Your task to perform on an android device: Open the Play Movies app and select the watchlist tab. Image 0: 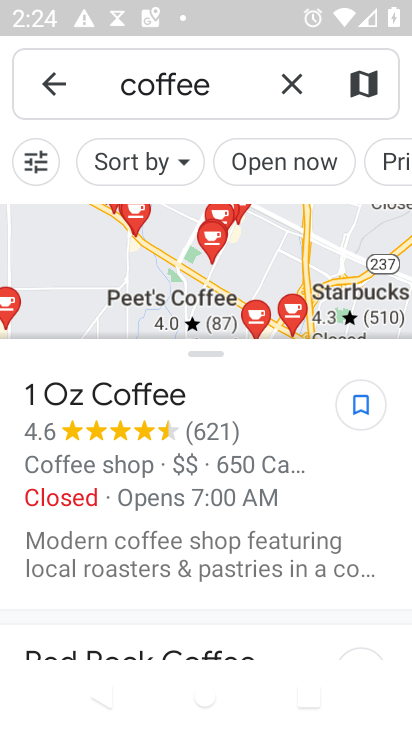
Step 0: press back button
Your task to perform on an android device: Open the Play Movies app and select the watchlist tab. Image 1: 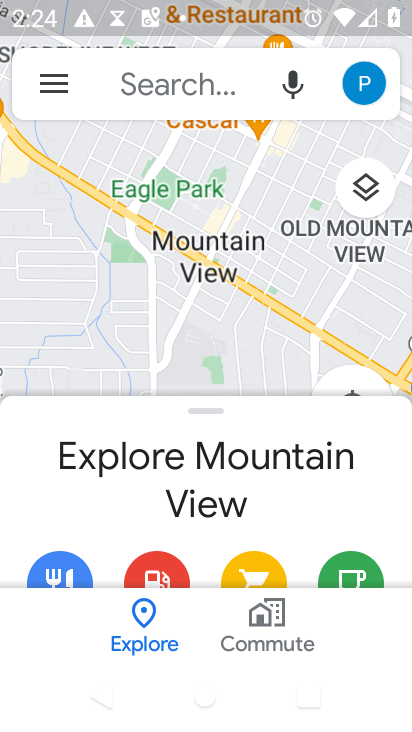
Step 1: press back button
Your task to perform on an android device: Open the Play Movies app and select the watchlist tab. Image 2: 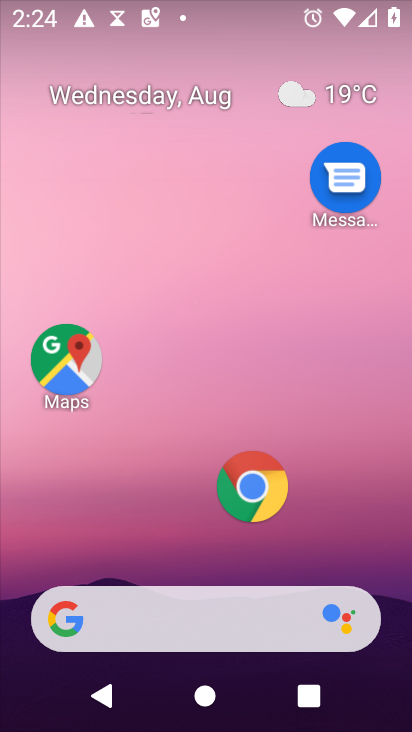
Step 2: drag from (136, 559) to (240, 31)
Your task to perform on an android device: Open the Play Movies app and select the watchlist tab. Image 3: 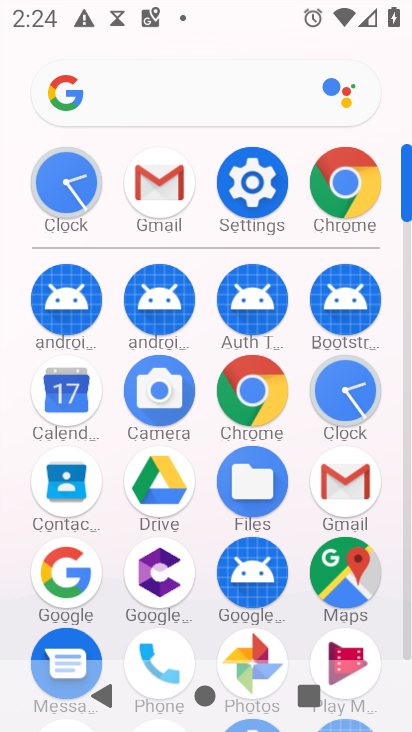
Step 3: click (345, 644)
Your task to perform on an android device: Open the Play Movies app and select the watchlist tab. Image 4: 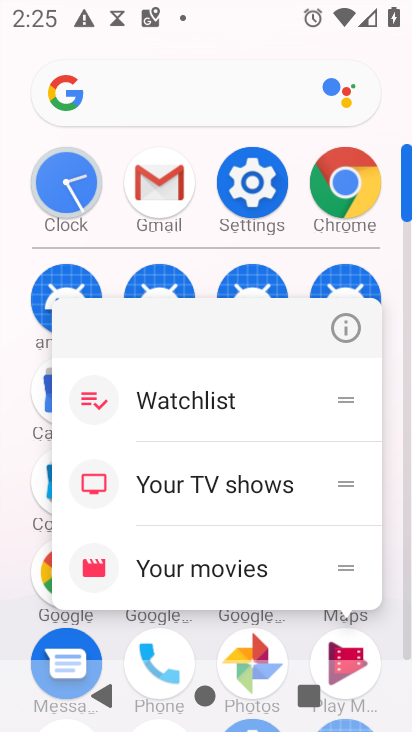
Step 4: click (345, 644)
Your task to perform on an android device: Open the Play Movies app and select the watchlist tab. Image 5: 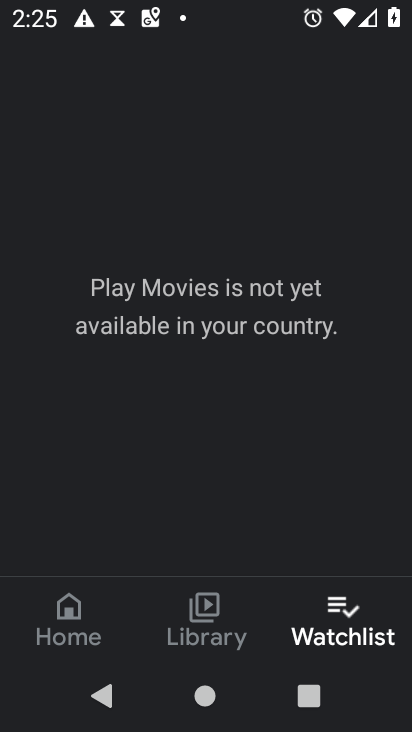
Step 5: click (349, 628)
Your task to perform on an android device: Open the Play Movies app and select the watchlist tab. Image 6: 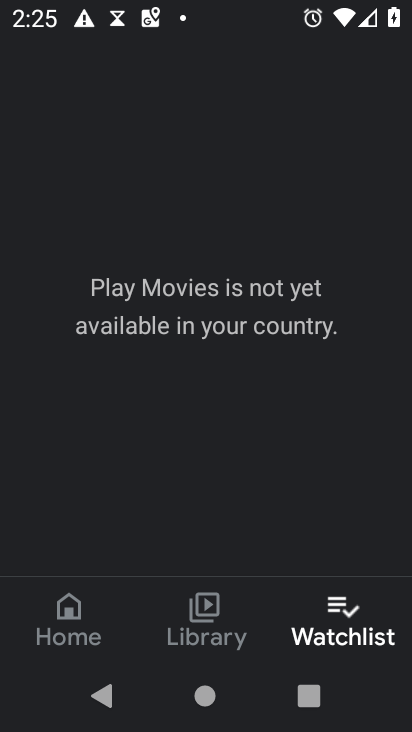
Step 6: task complete